Your task to perform on an android device: toggle javascript in the chrome app Image 0: 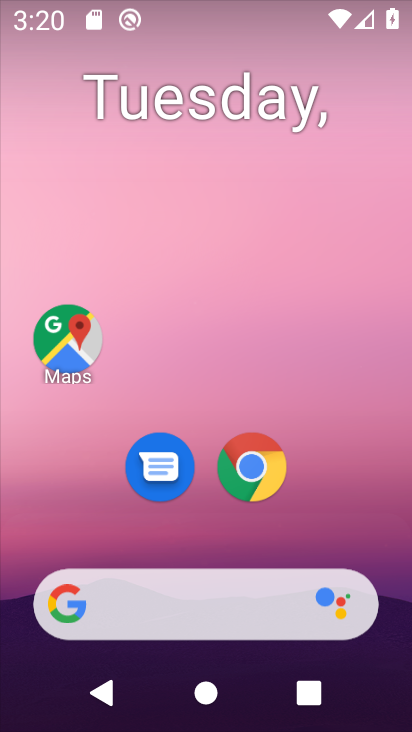
Step 0: click (236, 476)
Your task to perform on an android device: toggle javascript in the chrome app Image 1: 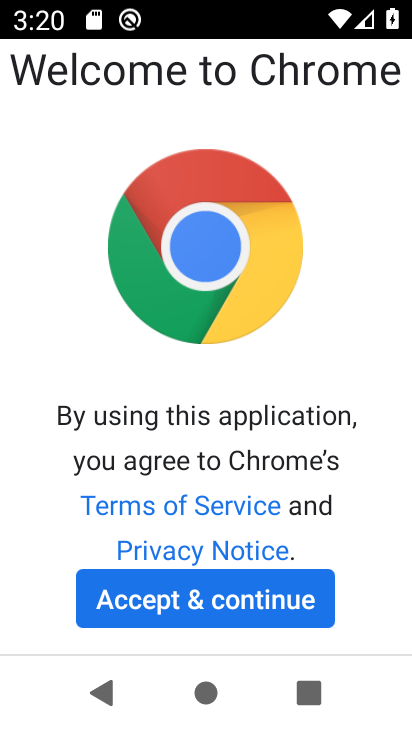
Step 1: click (273, 598)
Your task to perform on an android device: toggle javascript in the chrome app Image 2: 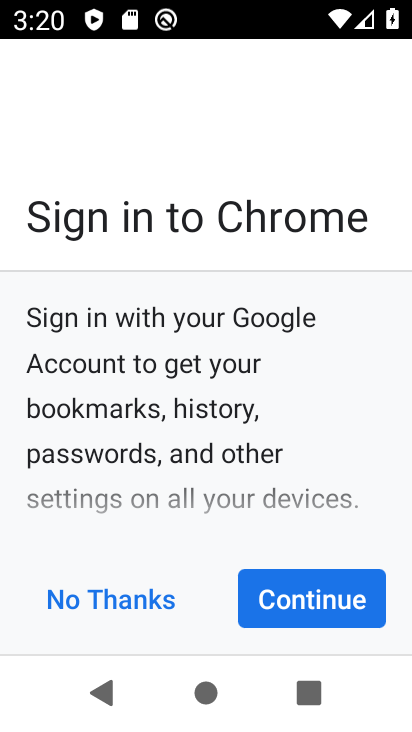
Step 2: click (280, 584)
Your task to perform on an android device: toggle javascript in the chrome app Image 3: 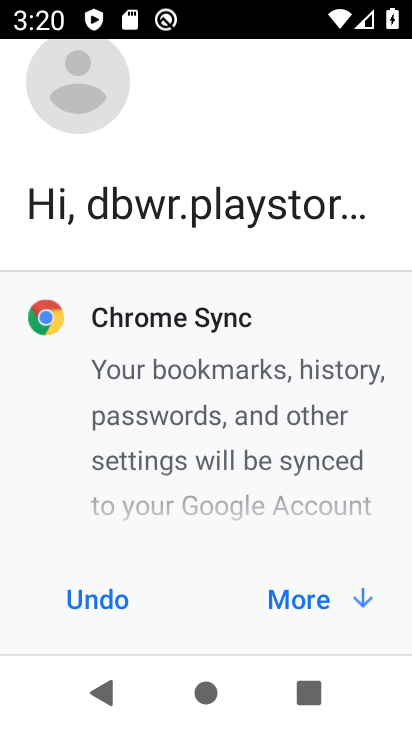
Step 3: click (309, 602)
Your task to perform on an android device: toggle javascript in the chrome app Image 4: 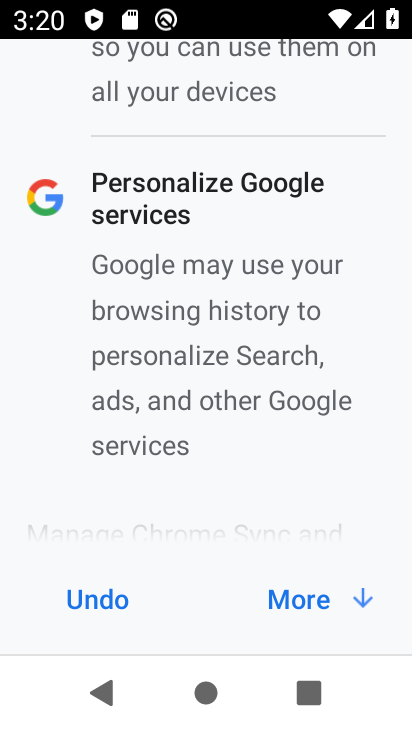
Step 4: click (328, 577)
Your task to perform on an android device: toggle javascript in the chrome app Image 5: 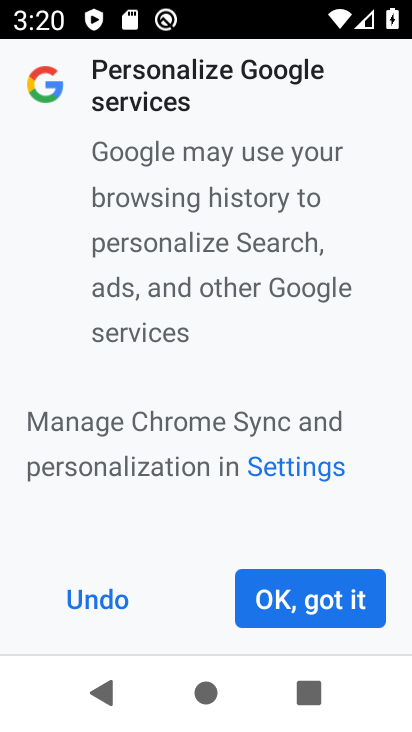
Step 5: click (340, 603)
Your task to perform on an android device: toggle javascript in the chrome app Image 6: 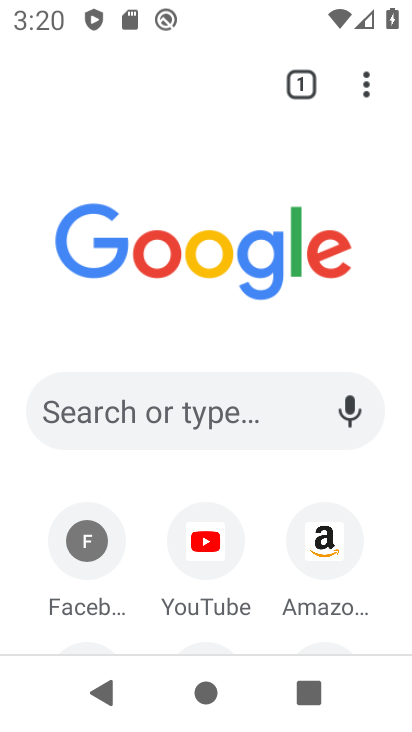
Step 6: click (361, 85)
Your task to perform on an android device: toggle javascript in the chrome app Image 7: 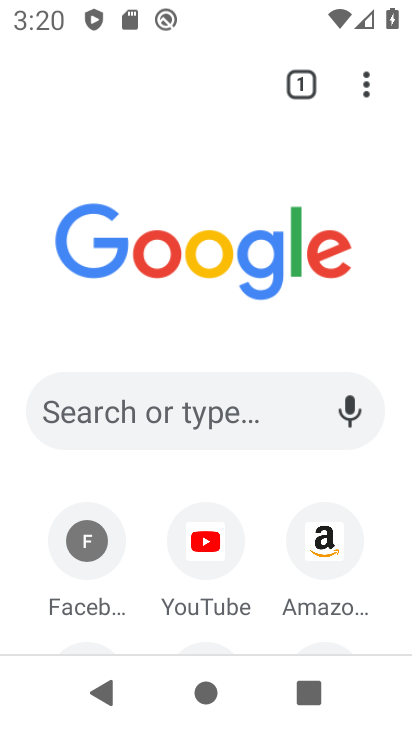
Step 7: click (367, 105)
Your task to perform on an android device: toggle javascript in the chrome app Image 8: 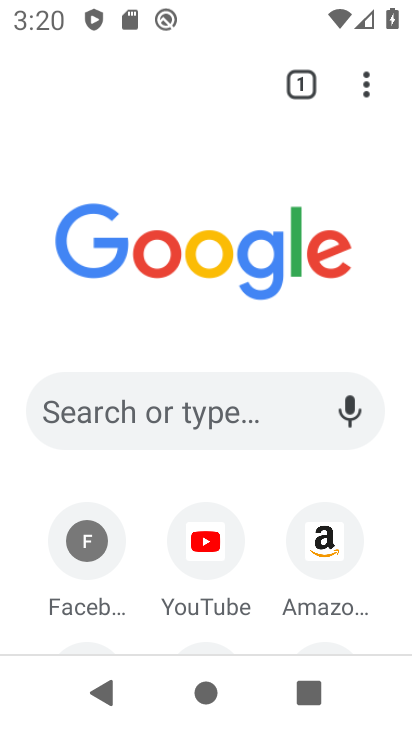
Step 8: drag from (364, 87) to (143, 525)
Your task to perform on an android device: toggle javascript in the chrome app Image 9: 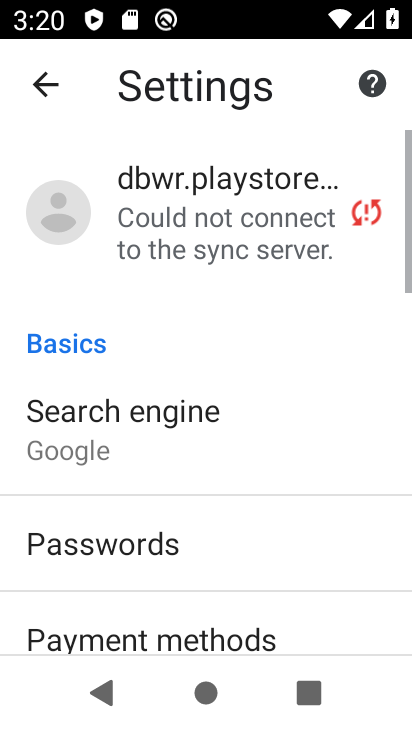
Step 9: drag from (143, 525) to (59, 50)
Your task to perform on an android device: toggle javascript in the chrome app Image 10: 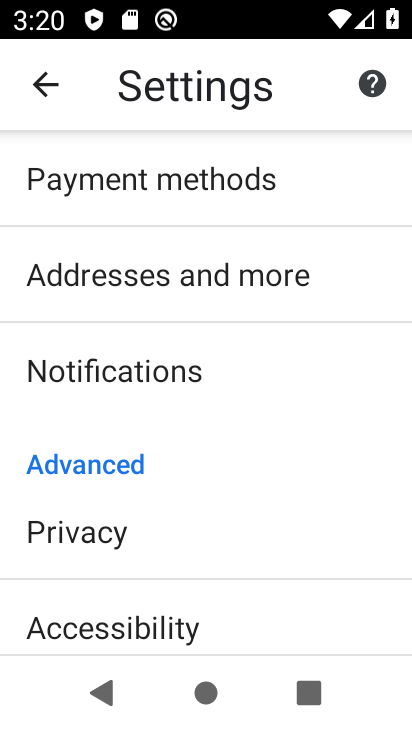
Step 10: drag from (139, 570) to (84, 268)
Your task to perform on an android device: toggle javascript in the chrome app Image 11: 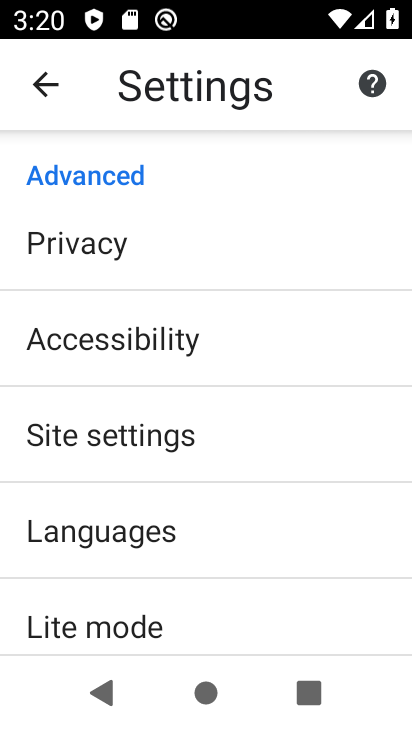
Step 11: drag from (140, 535) to (115, 428)
Your task to perform on an android device: toggle javascript in the chrome app Image 12: 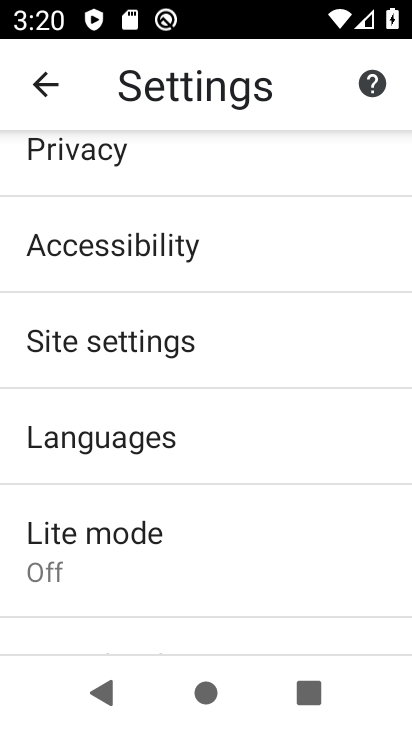
Step 12: click (98, 347)
Your task to perform on an android device: toggle javascript in the chrome app Image 13: 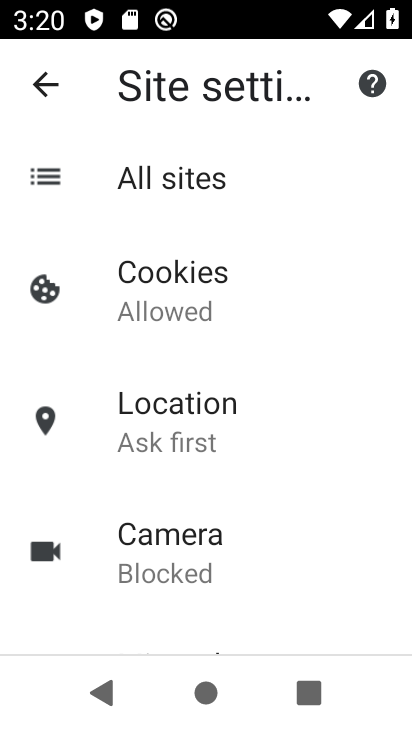
Step 13: drag from (151, 463) to (76, 86)
Your task to perform on an android device: toggle javascript in the chrome app Image 14: 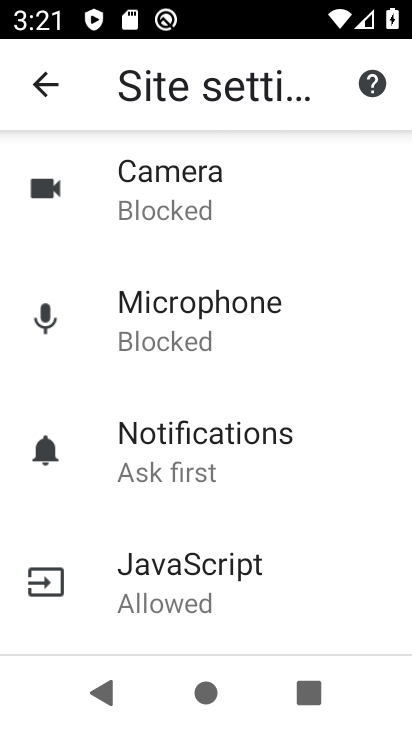
Step 14: click (92, 630)
Your task to perform on an android device: toggle javascript in the chrome app Image 15: 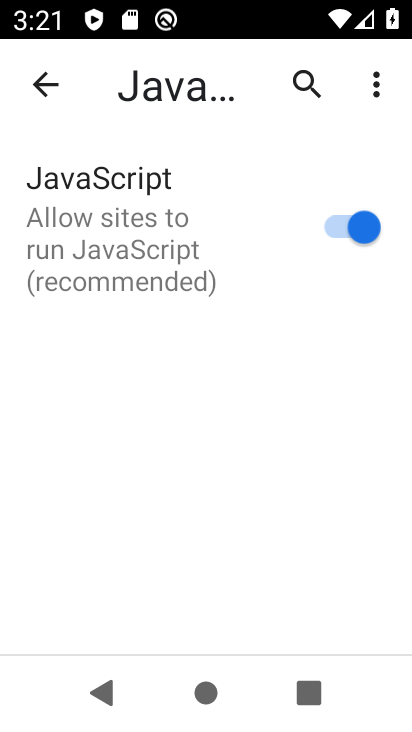
Step 15: click (327, 240)
Your task to perform on an android device: toggle javascript in the chrome app Image 16: 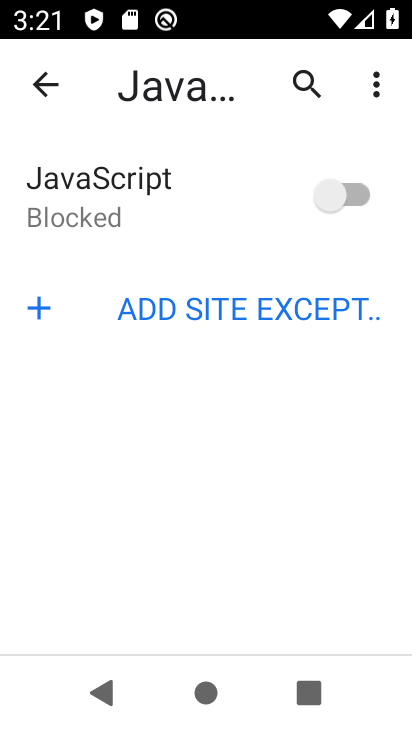
Step 16: task complete